Your task to perform on an android device: Clear all items from cart on amazon. Add "rayovac triple a" to the cart on amazon Image 0: 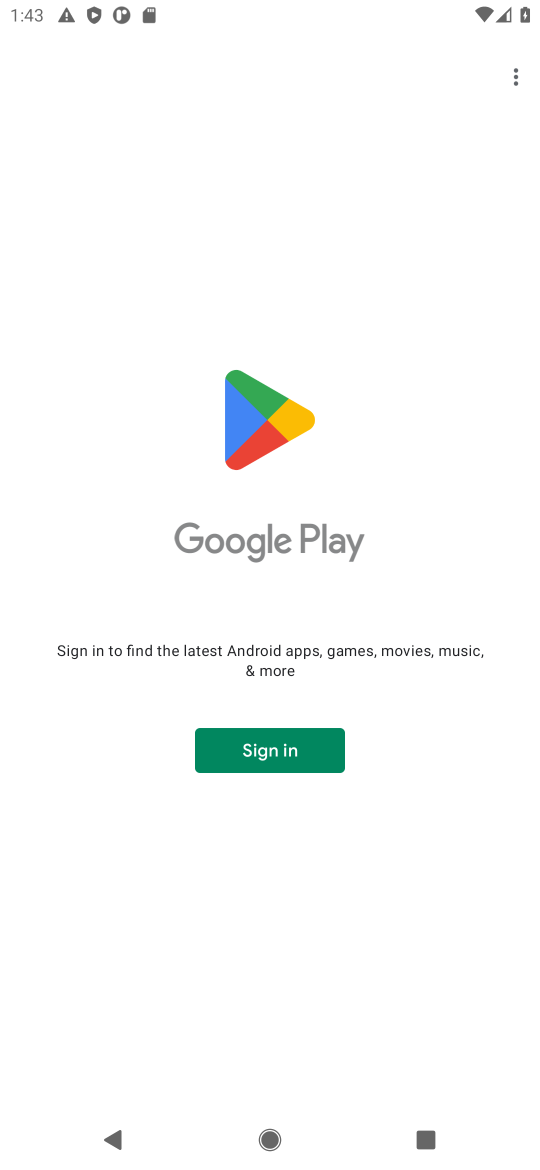
Step 0: press home button
Your task to perform on an android device: Clear all items from cart on amazon. Add "rayovac triple a" to the cart on amazon Image 1: 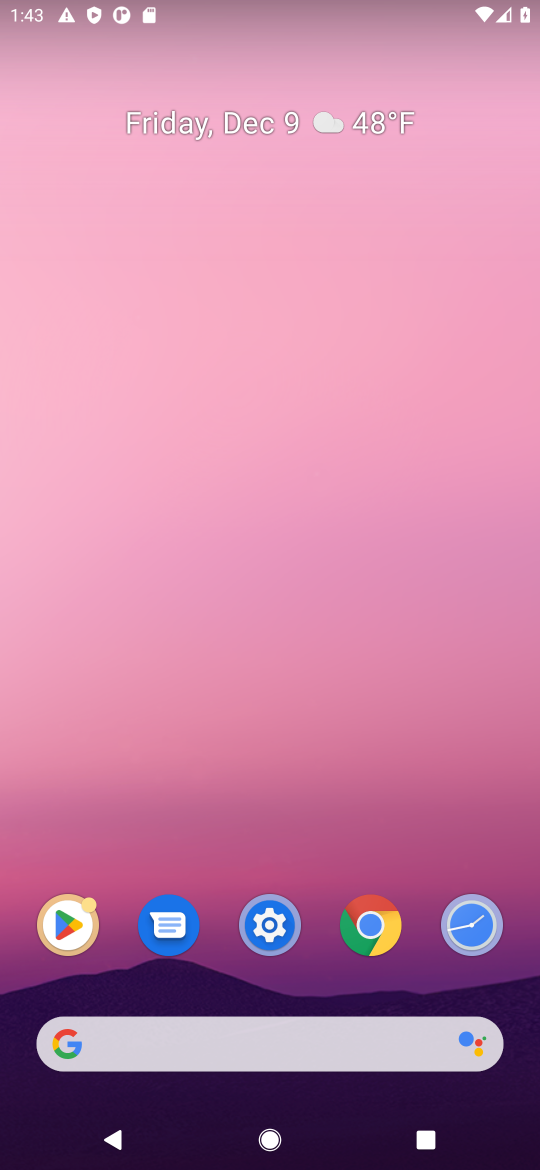
Step 1: click (297, 1014)
Your task to perform on an android device: Clear all items from cart on amazon. Add "rayovac triple a" to the cart on amazon Image 2: 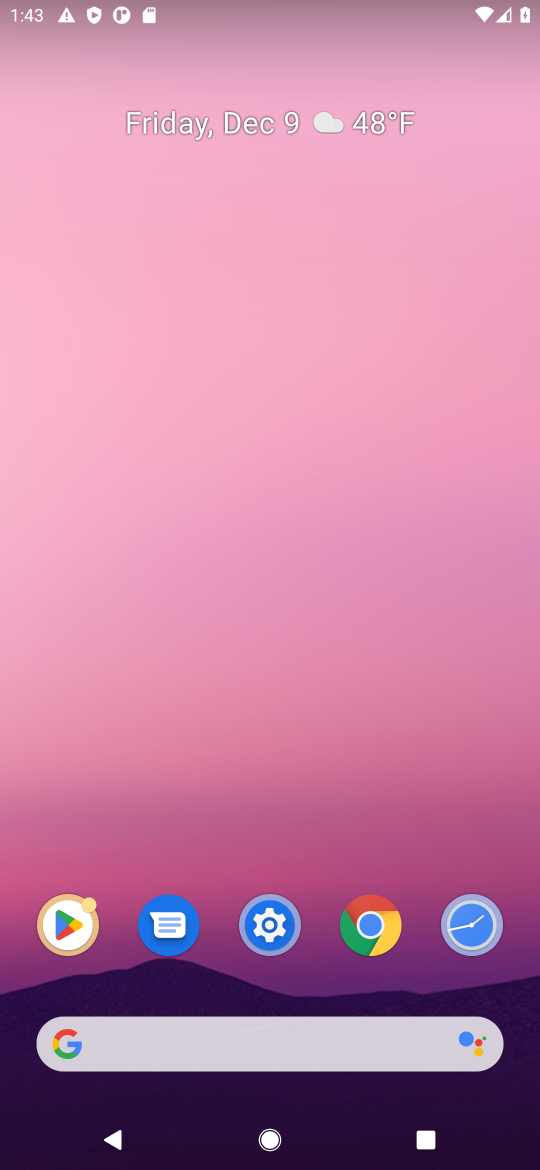
Step 2: click (321, 1034)
Your task to perform on an android device: Clear all items from cart on amazon. Add "rayovac triple a" to the cart on amazon Image 3: 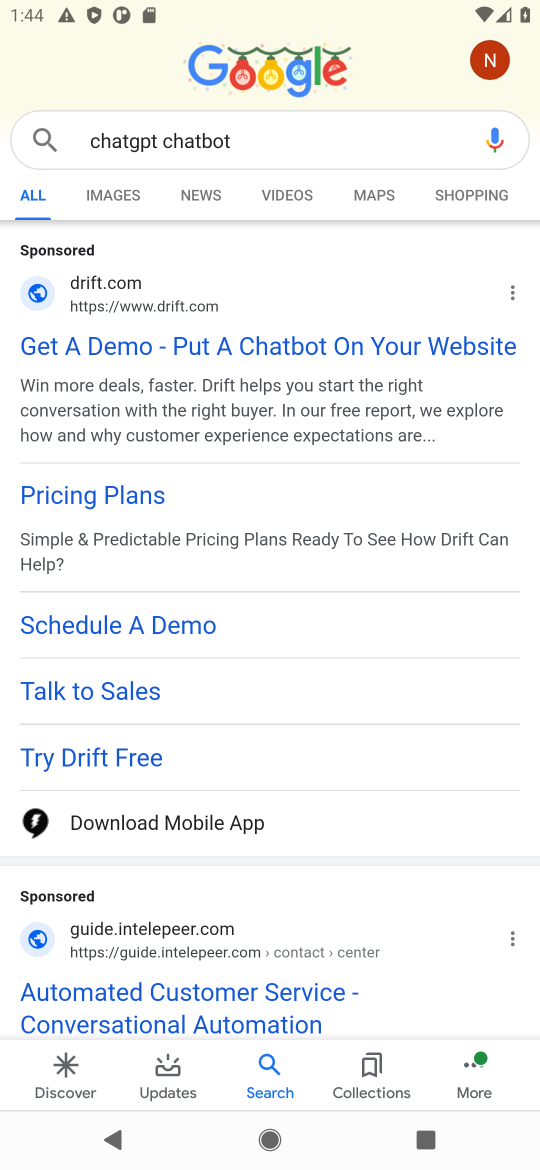
Step 3: type "amazon"
Your task to perform on an android device: Clear all items from cart on amazon. Add "rayovac triple a" to the cart on amazon Image 4: 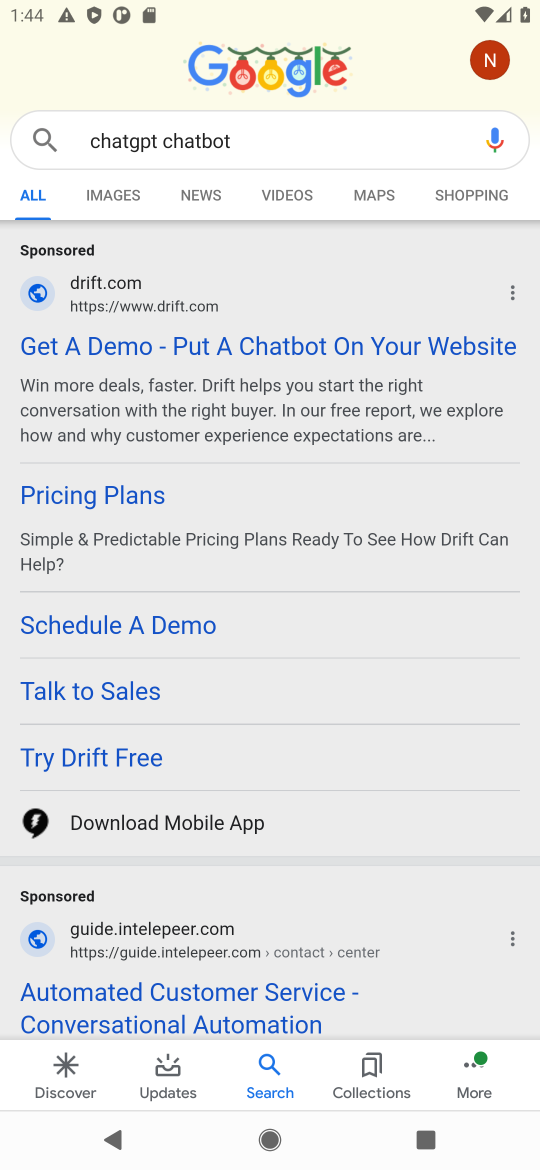
Step 4: click (325, 122)
Your task to perform on an android device: Clear all items from cart on amazon. Add "rayovac triple a" to the cart on amazon Image 5: 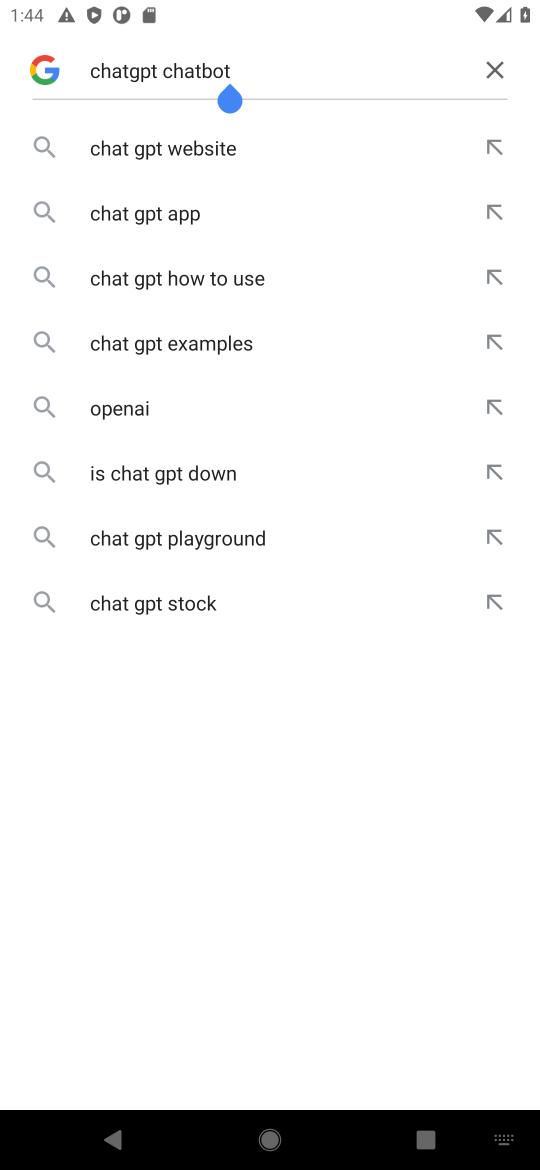
Step 5: click (325, 132)
Your task to perform on an android device: Clear all items from cart on amazon. Add "rayovac triple a" to the cart on amazon Image 6: 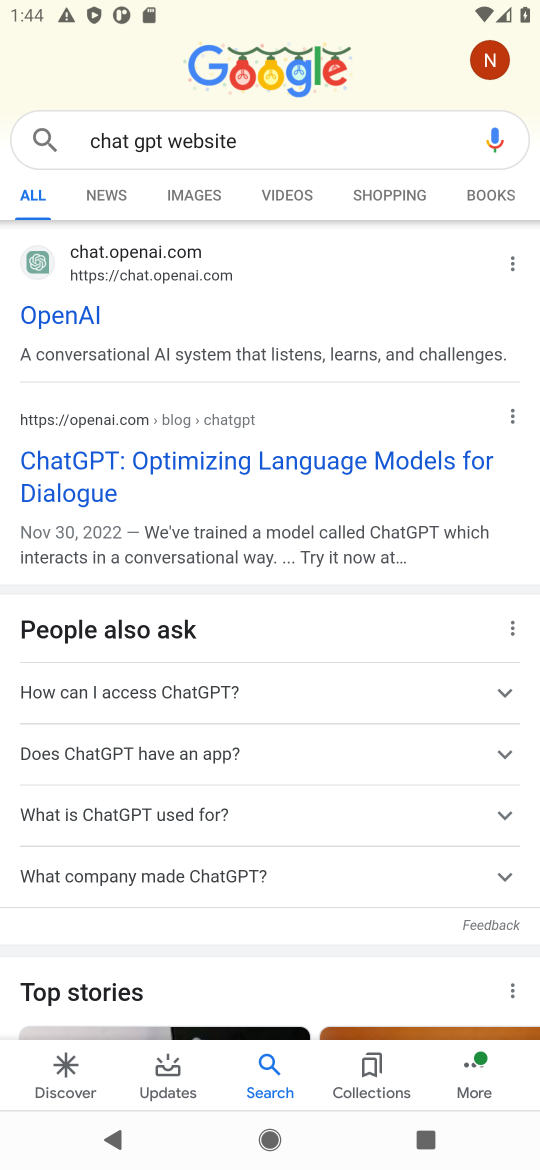
Step 6: click (416, 145)
Your task to perform on an android device: Clear all items from cart on amazon. Add "rayovac triple a" to the cart on amazon Image 7: 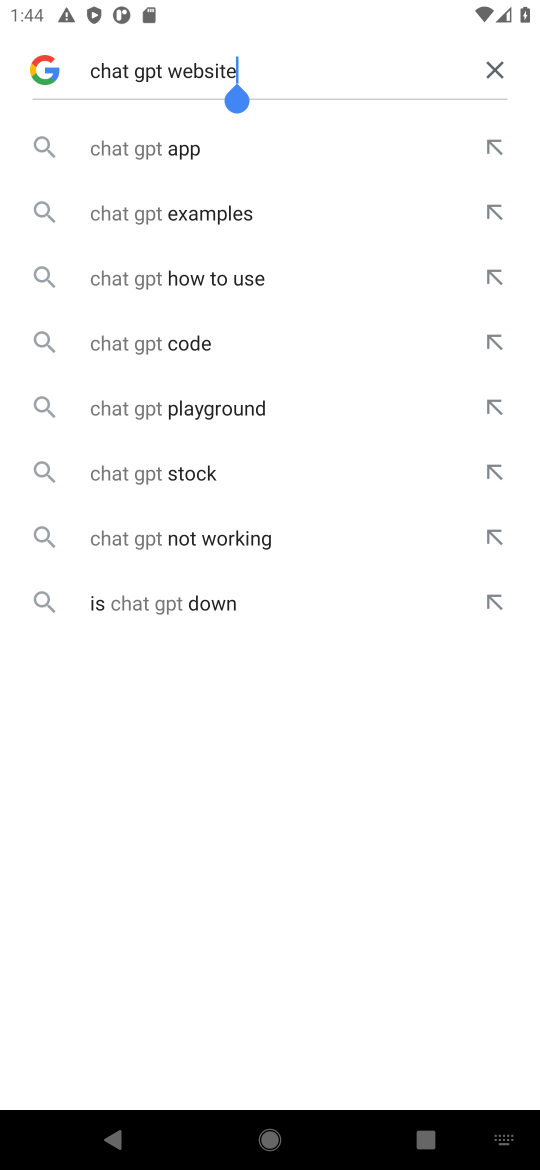
Step 7: click (488, 84)
Your task to perform on an android device: Clear all items from cart on amazon. Add "rayovac triple a" to the cart on amazon Image 8: 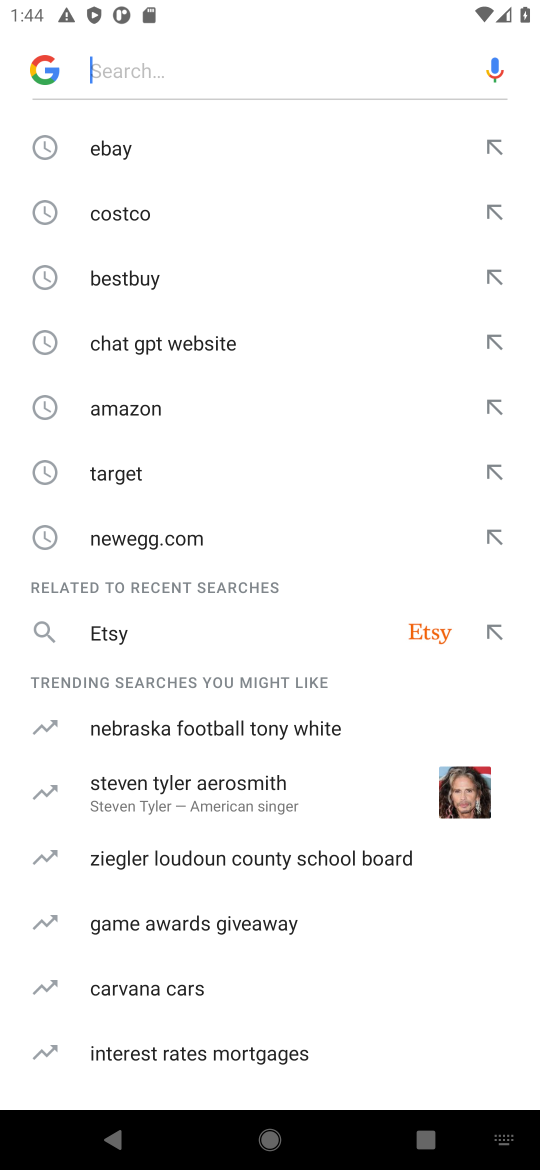
Step 8: type "amazon"
Your task to perform on an android device: Clear all items from cart on amazon. Add "rayovac triple a" to the cart on amazon Image 9: 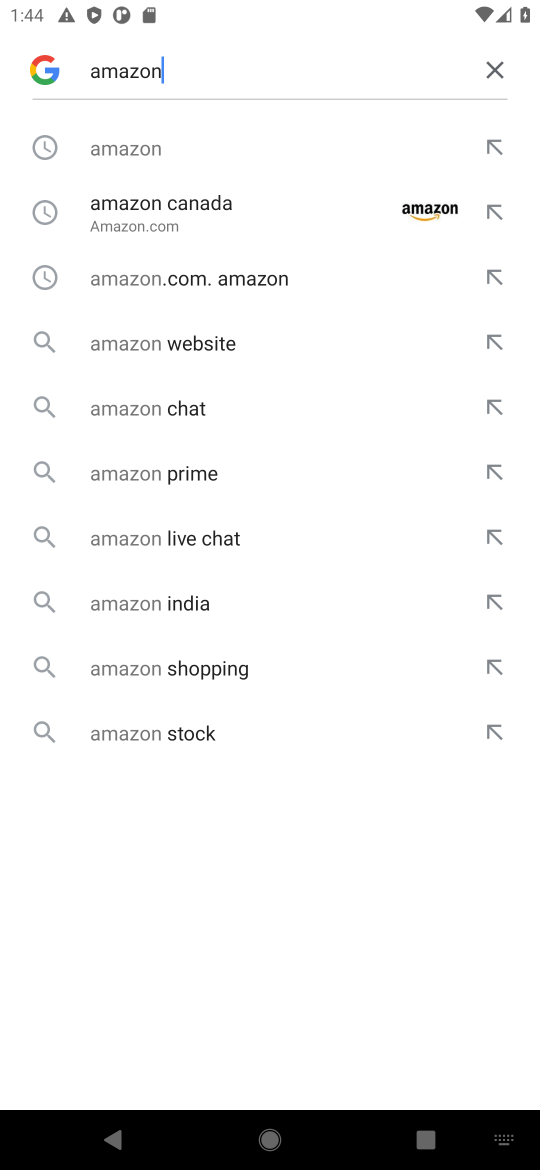
Step 9: click (274, 201)
Your task to perform on an android device: Clear all items from cart on amazon. Add "rayovac triple a" to the cart on amazon Image 10: 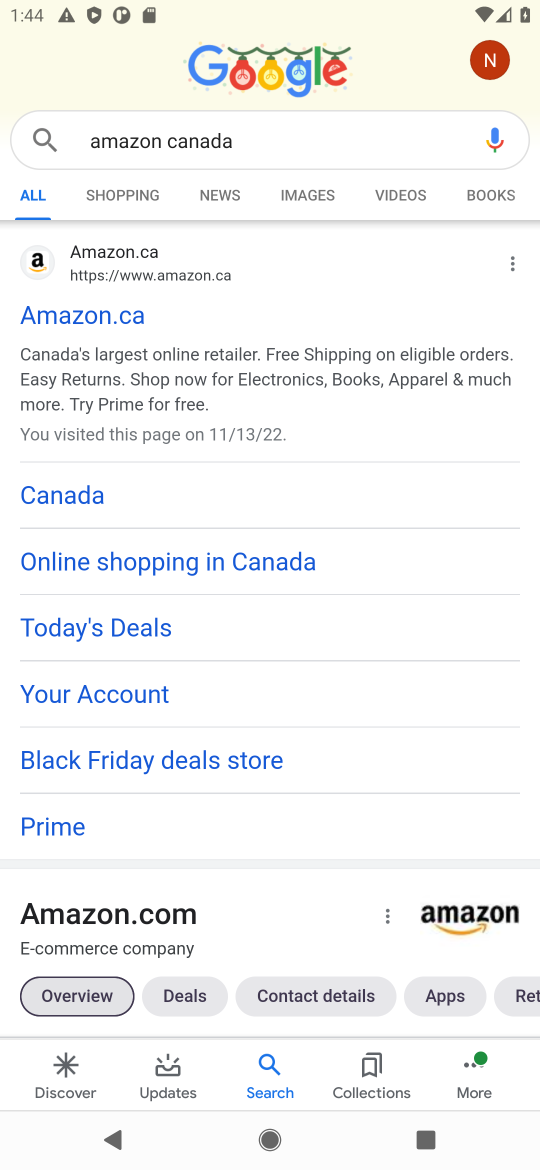
Step 10: click (49, 357)
Your task to perform on an android device: Clear all items from cart on amazon. Add "rayovac triple a" to the cart on amazon Image 11: 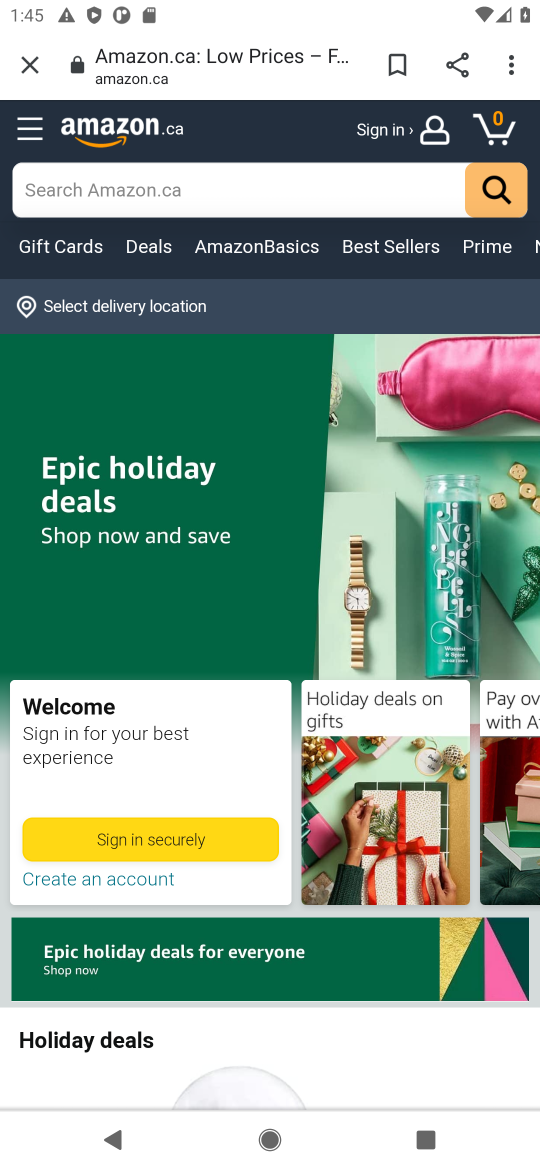
Step 11: click (209, 182)
Your task to perform on an android device: Clear all items from cart on amazon. Add "rayovac triple a" to the cart on amazon Image 12: 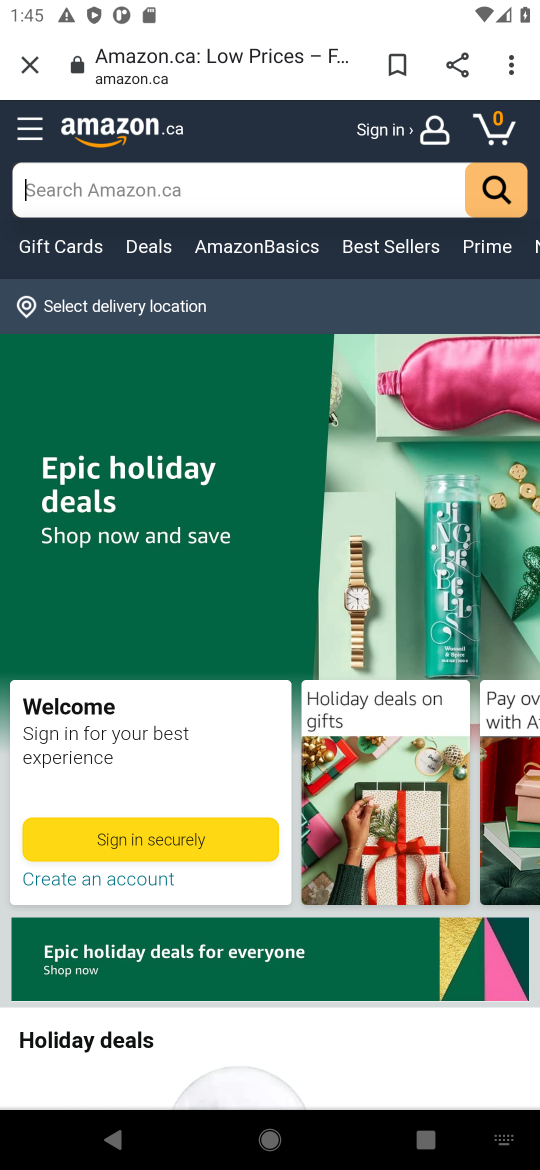
Step 12: type "rayovac triple a"
Your task to perform on an android device: Clear all items from cart on amazon. Add "rayovac triple a" to the cart on amazon Image 13: 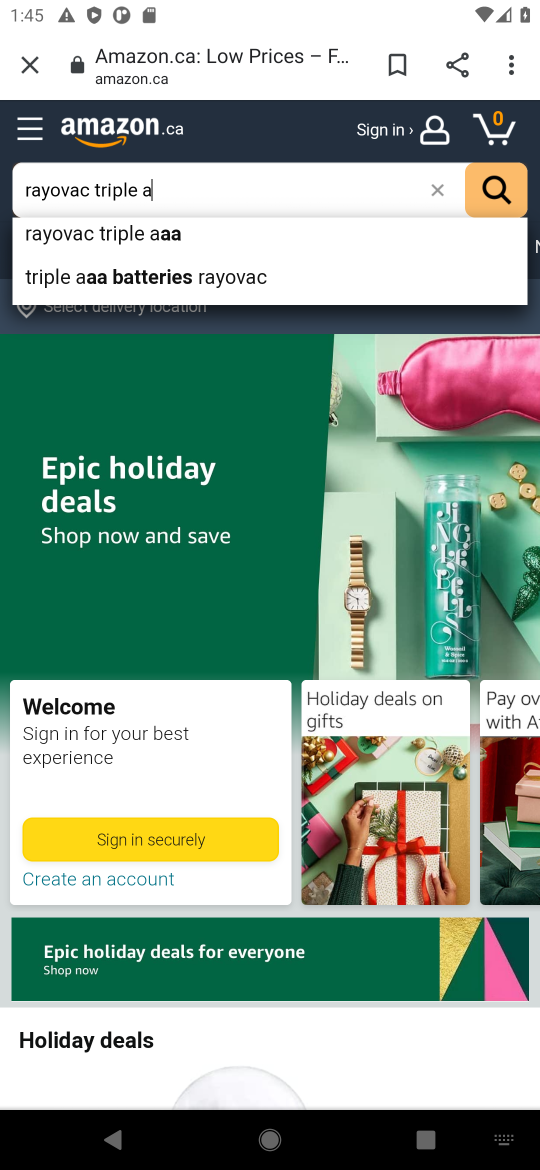
Step 13: click (494, 200)
Your task to perform on an android device: Clear all items from cart on amazon. Add "rayovac triple a" to the cart on amazon Image 14: 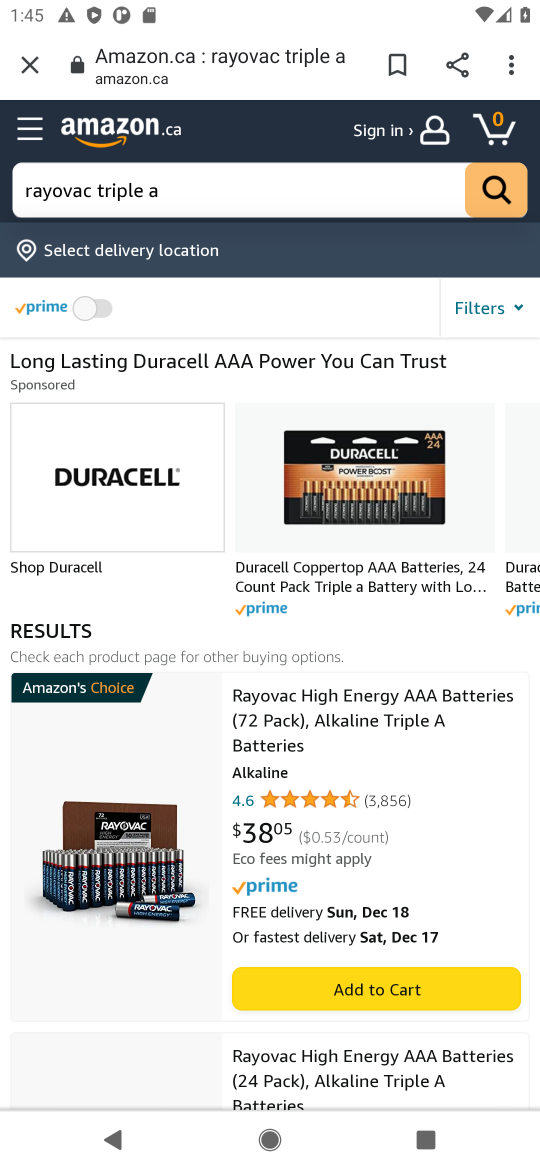
Step 14: click (286, 1013)
Your task to perform on an android device: Clear all items from cart on amazon. Add "rayovac triple a" to the cart on amazon Image 15: 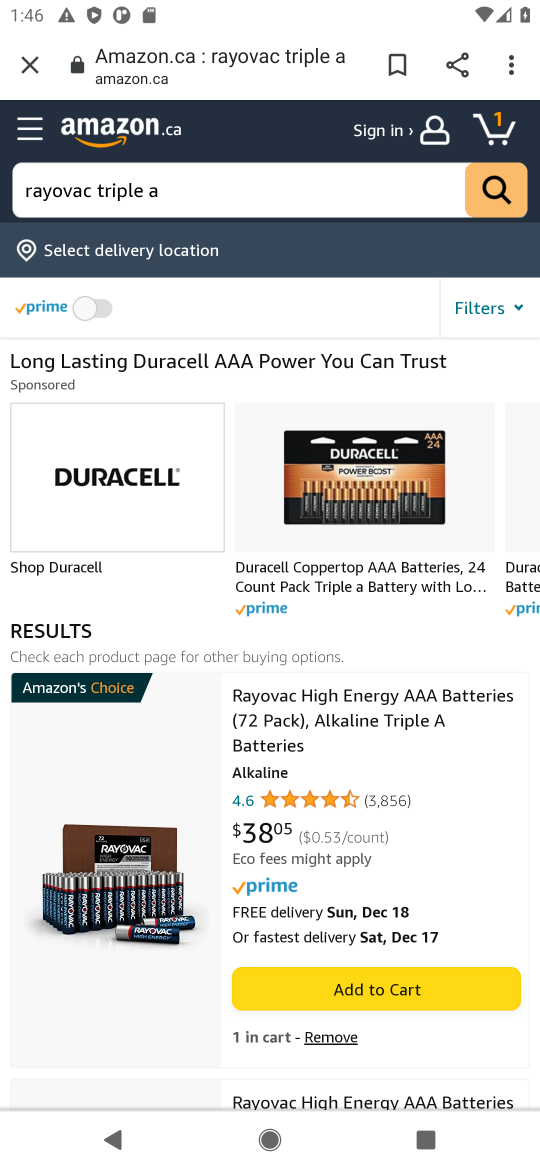
Step 15: click (294, 991)
Your task to perform on an android device: Clear all items from cart on amazon. Add "rayovac triple a" to the cart on amazon Image 16: 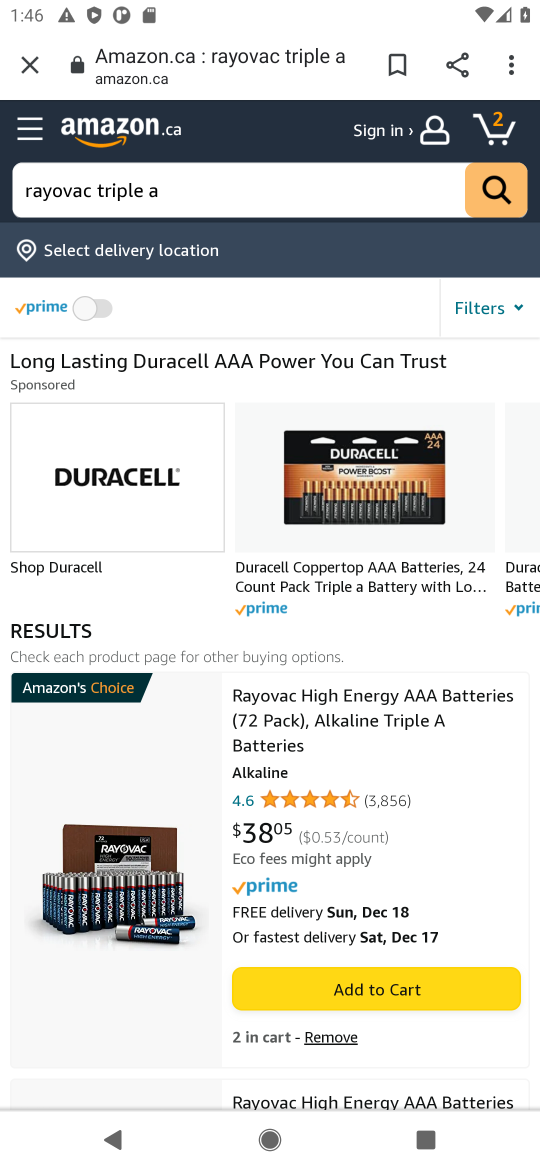
Step 16: task complete